Your task to perform on an android device: toggle data saver in the chrome app Image 0: 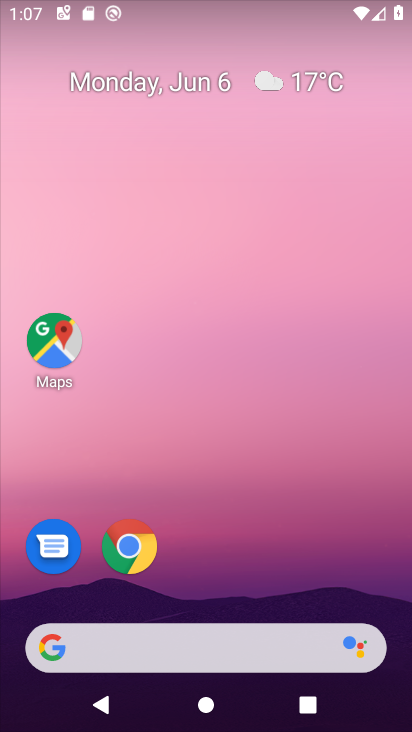
Step 0: click (136, 564)
Your task to perform on an android device: toggle data saver in the chrome app Image 1: 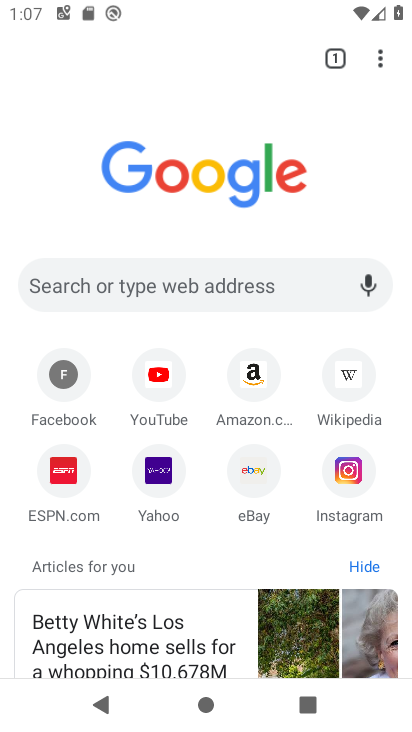
Step 1: drag from (376, 70) to (208, 499)
Your task to perform on an android device: toggle data saver in the chrome app Image 2: 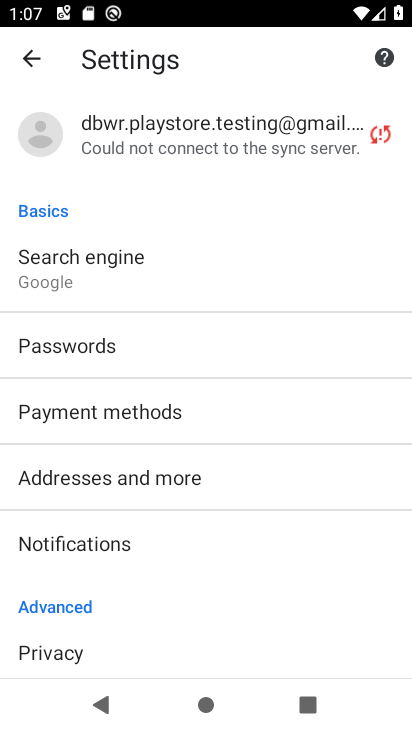
Step 2: drag from (157, 561) to (68, 15)
Your task to perform on an android device: toggle data saver in the chrome app Image 3: 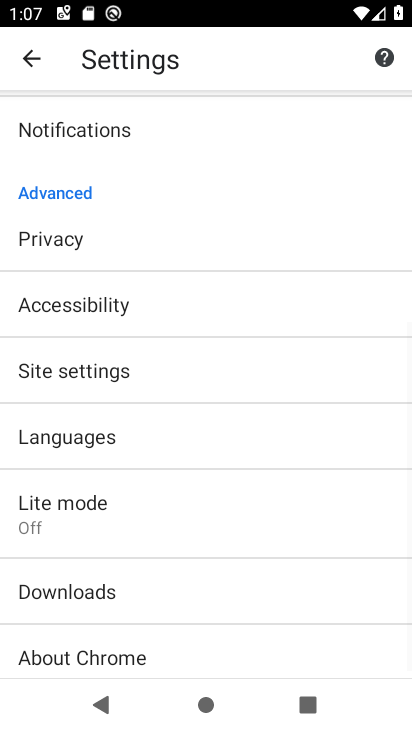
Step 3: click (176, 501)
Your task to perform on an android device: toggle data saver in the chrome app Image 4: 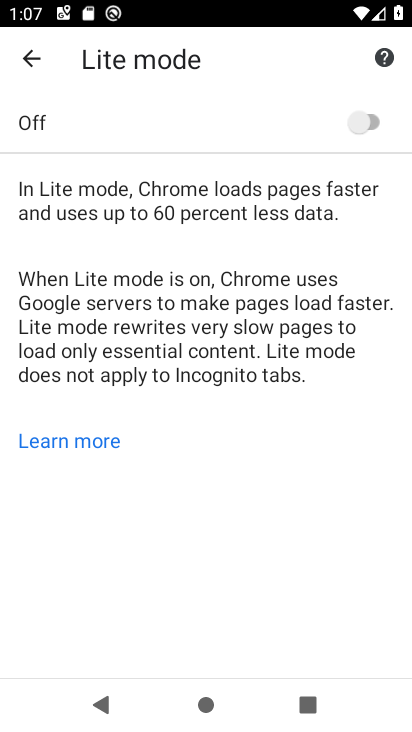
Step 4: click (361, 114)
Your task to perform on an android device: toggle data saver in the chrome app Image 5: 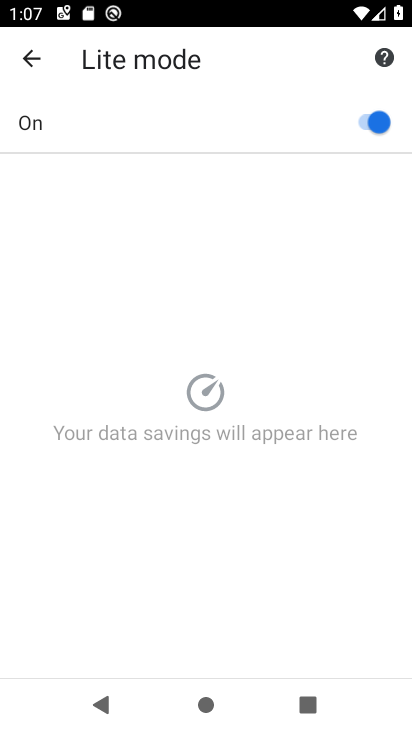
Step 5: task complete